Your task to perform on an android device: turn on location history Image 0: 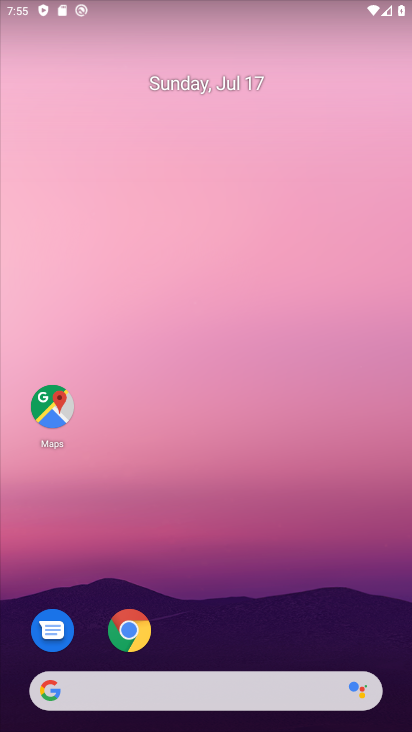
Step 0: drag from (299, 635) to (362, 71)
Your task to perform on an android device: turn on location history Image 1: 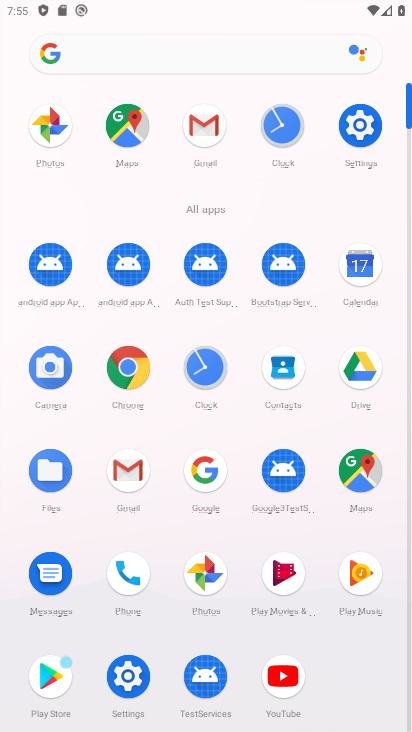
Step 1: click (363, 127)
Your task to perform on an android device: turn on location history Image 2: 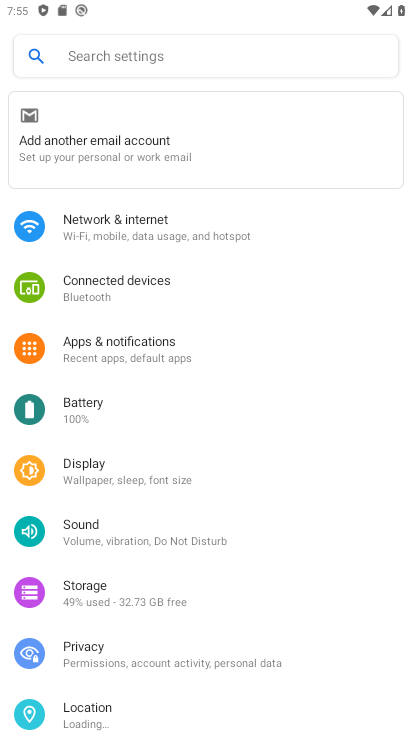
Step 2: drag from (335, 401) to (331, 321)
Your task to perform on an android device: turn on location history Image 3: 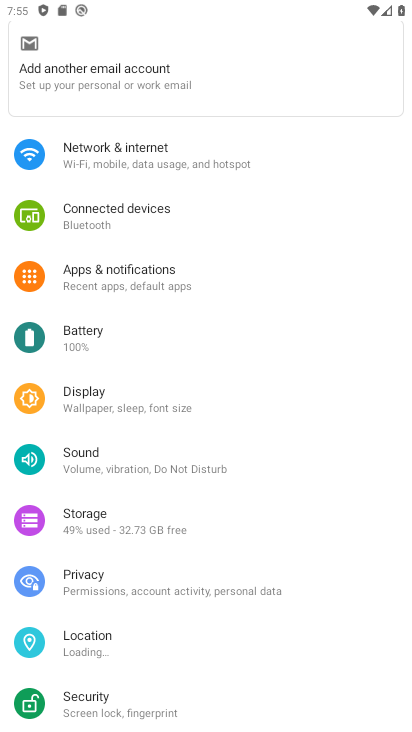
Step 3: drag from (338, 445) to (341, 345)
Your task to perform on an android device: turn on location history Image 4: 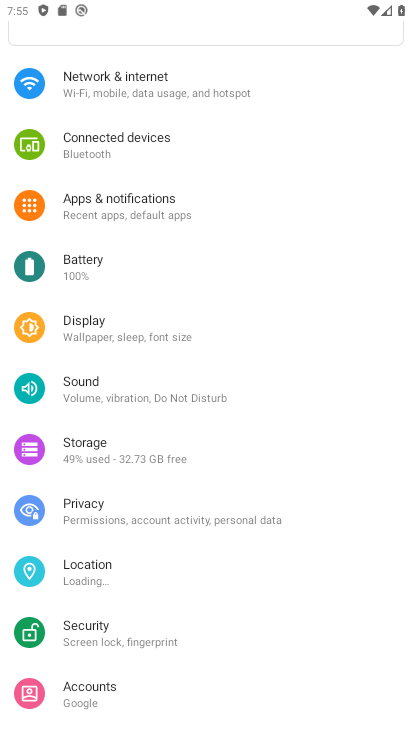
Step 4: drag from (346, 457) to (342, 379)
Your task to perform on an android device: turn on location history Image 5: 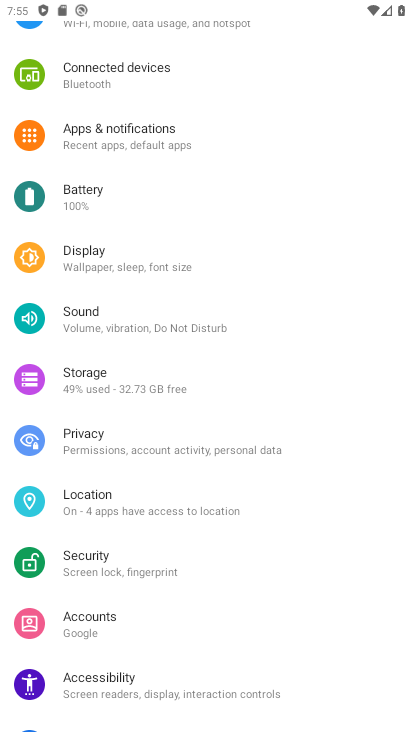
Step 5: drag from (322, 496) to (320, 384)
Your task to perform on an android device: turn on location history Image 6: 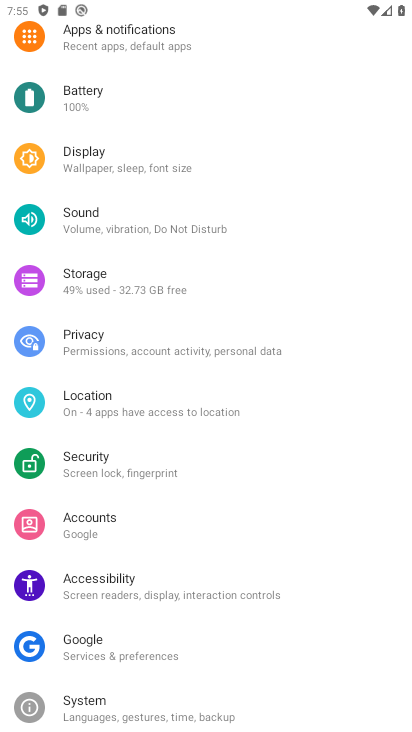
Step 6: drag from (332, 504) to (330, 415)
Your task to perform on an android device: turn on location history Image 7: 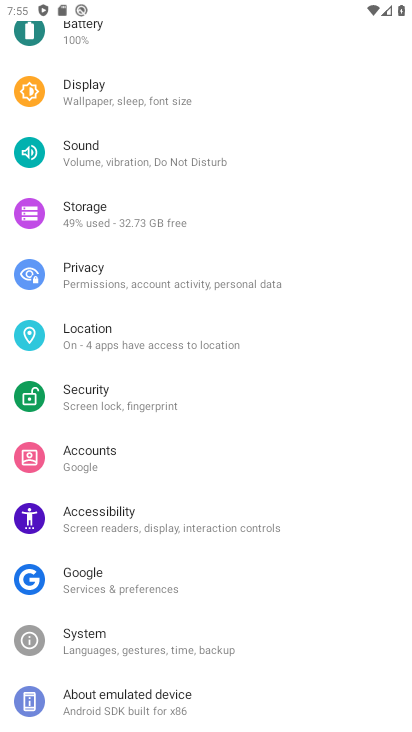
Step 7: click (211, 347)
Your task to perform on an android device: turn on location history Image 8: 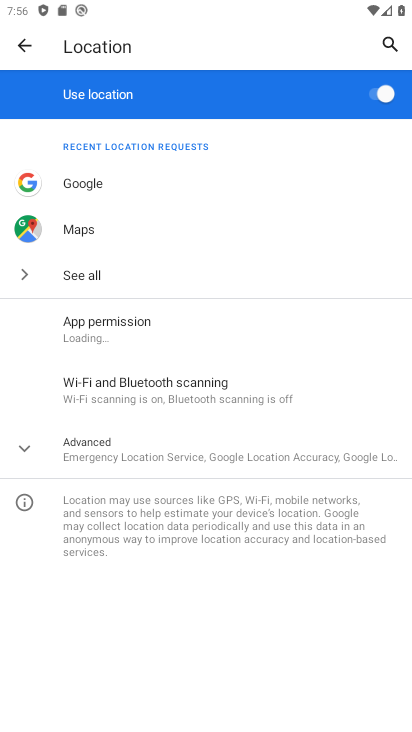
Step 8: click (164, 457)
Your task to perform on an android device: turn on location history Image 9: 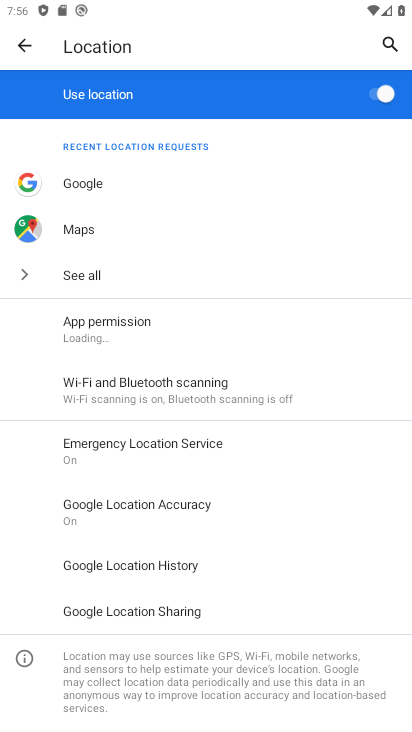
Step 9: drag from (277, 546) to (289, 458)
Your task to perform on an android device: turn on location history Image 10: 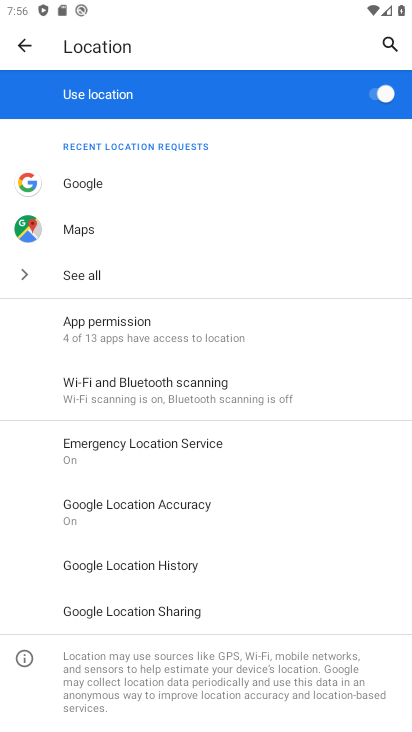
Step 10: click (192, 573)
Your task to perform on an android device: turn on location history Image 11: 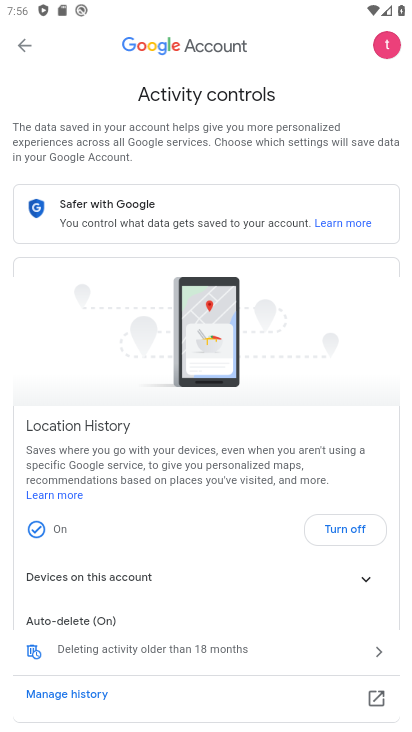
Step 11: task complete